Your task to perform on an android device: What's on my calendar today? Image 0: 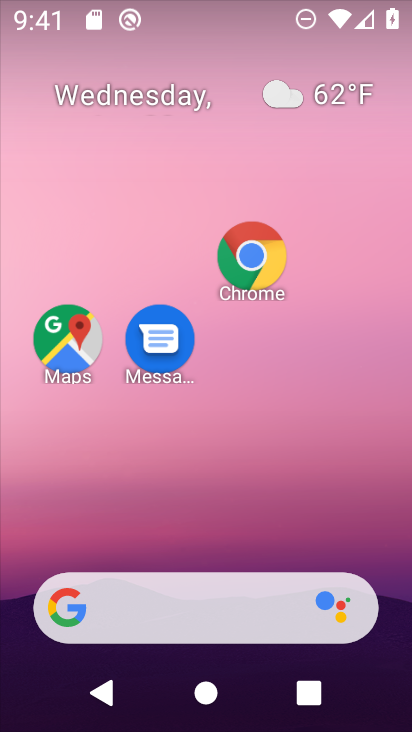
Step 0: drag from (233, 515) to (193, 37)
Your task to perform on an android device: What's on my calendar today? Image 1: 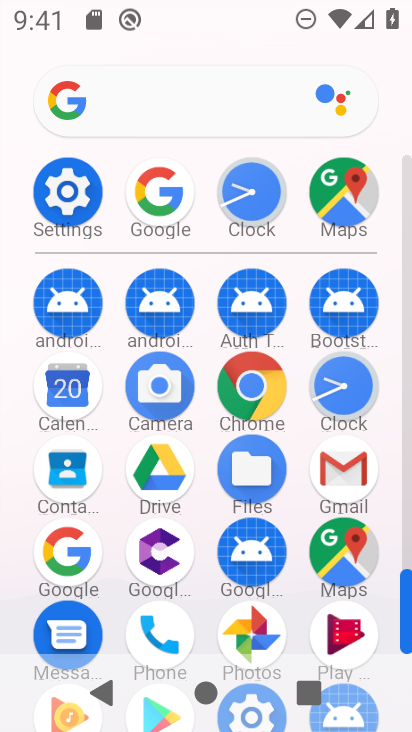
Step 1: click (58, 387)
Your task to perform on an android device: What's on my calendar today? Image 2: 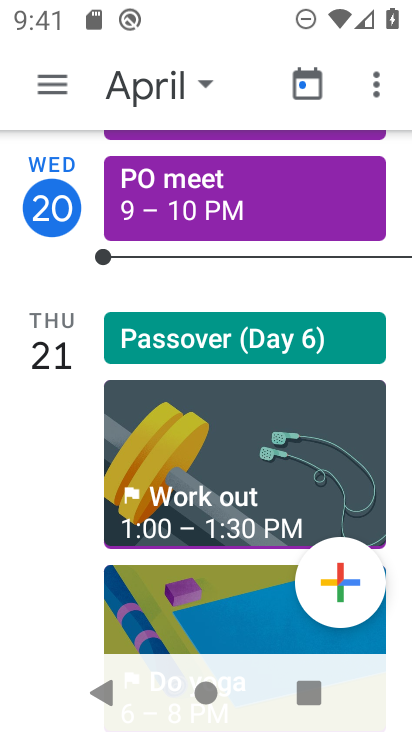
Step 2: click (209, 87)
Your task to perform on an android device: What's on my calendar today? Image 3: 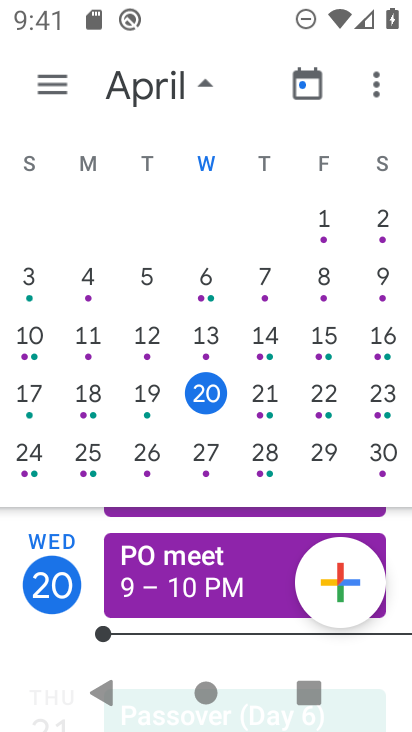
Step 3: click (205, 395)
Your task to perform on an android device: What's on my calendar today? Image 4: 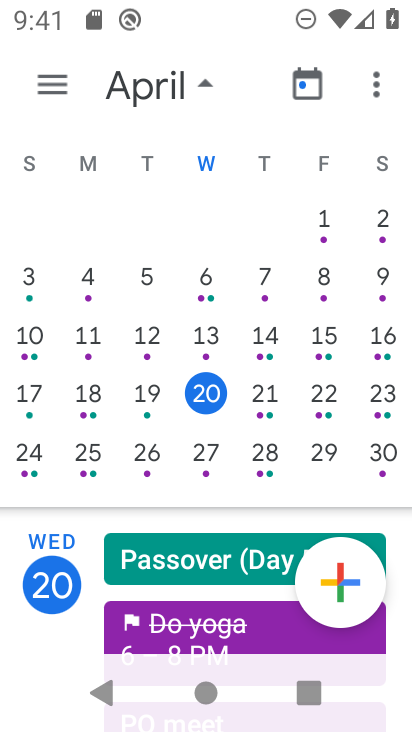
Step 4: task complete